Your task to perform on an android device: Show me popular videos on Youtube Image 0: 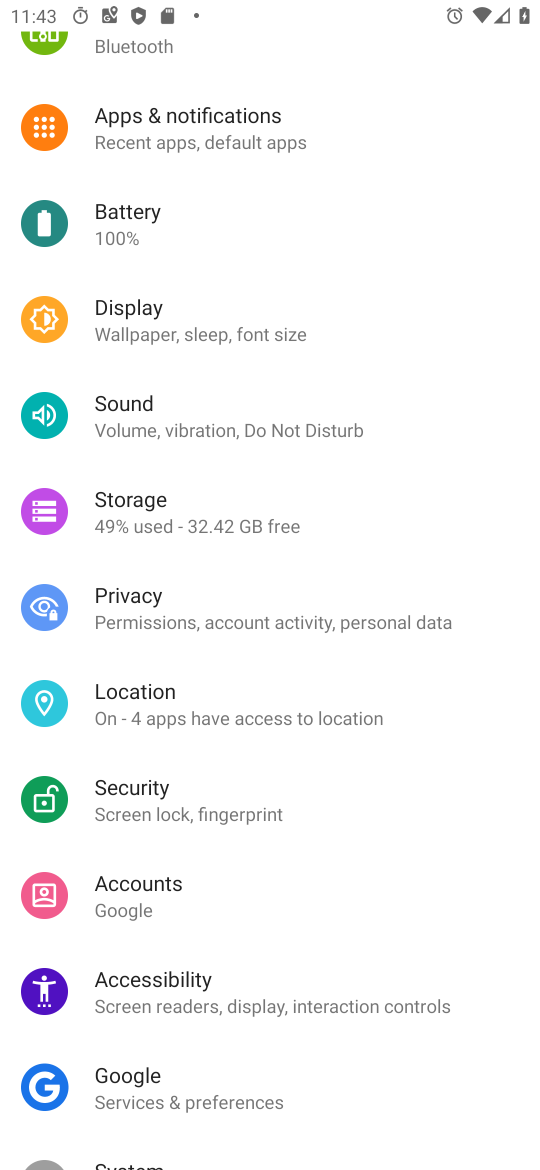
Step 0: press home button
Your task to perform on an android device: Show me popular videos on Youtube Image 1: 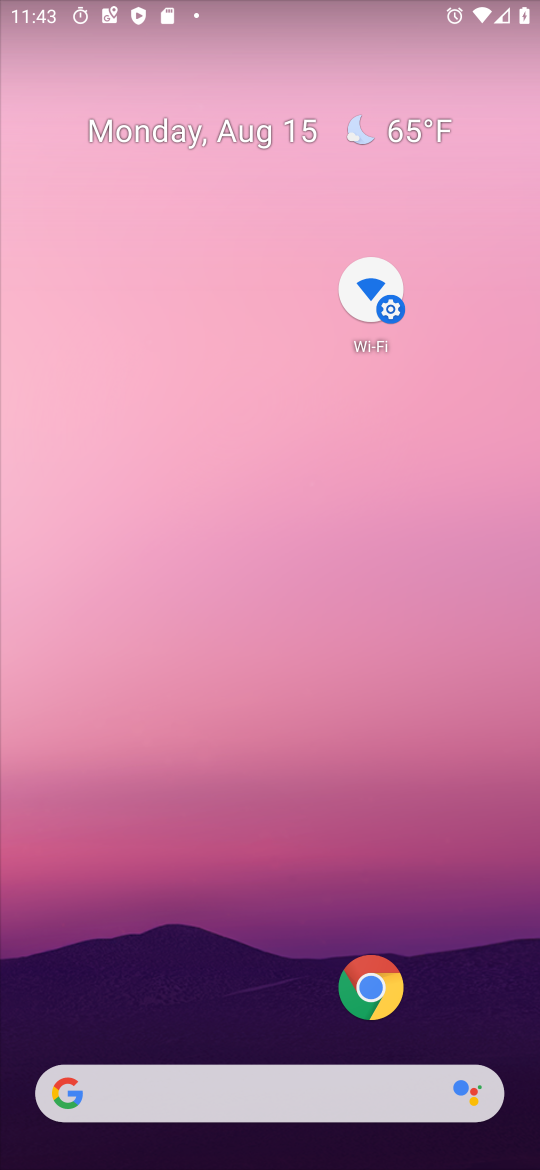
Step 1: drag from (261, 1043) to (445, 5)
Your task to perform on an android device: Show me popular videos on Youtube Image 2: 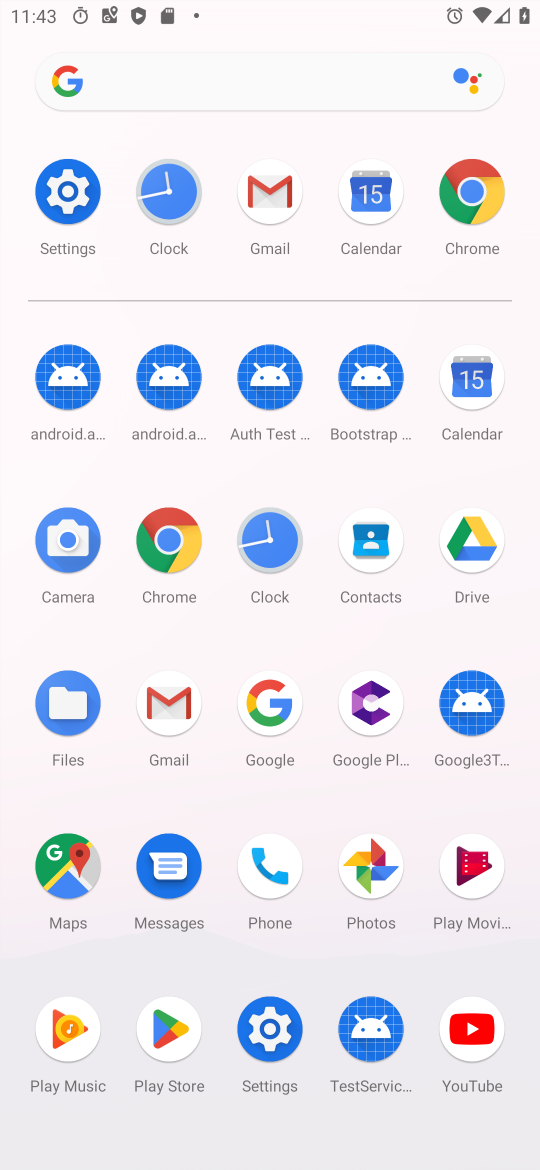
Step 2: click (465, 1014)
Your task to perform on an android device: Show me popular videos on Youtube Image 3: 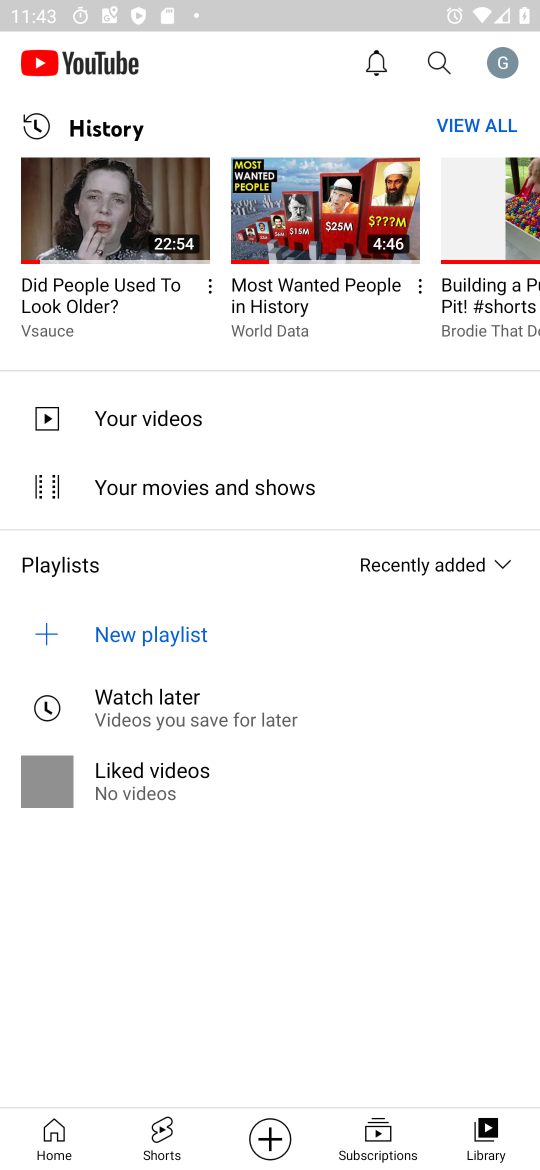
Step 3: click (59, 1129)
Your task to perform on an android device: Show me popular videos on Youtube Image 4: 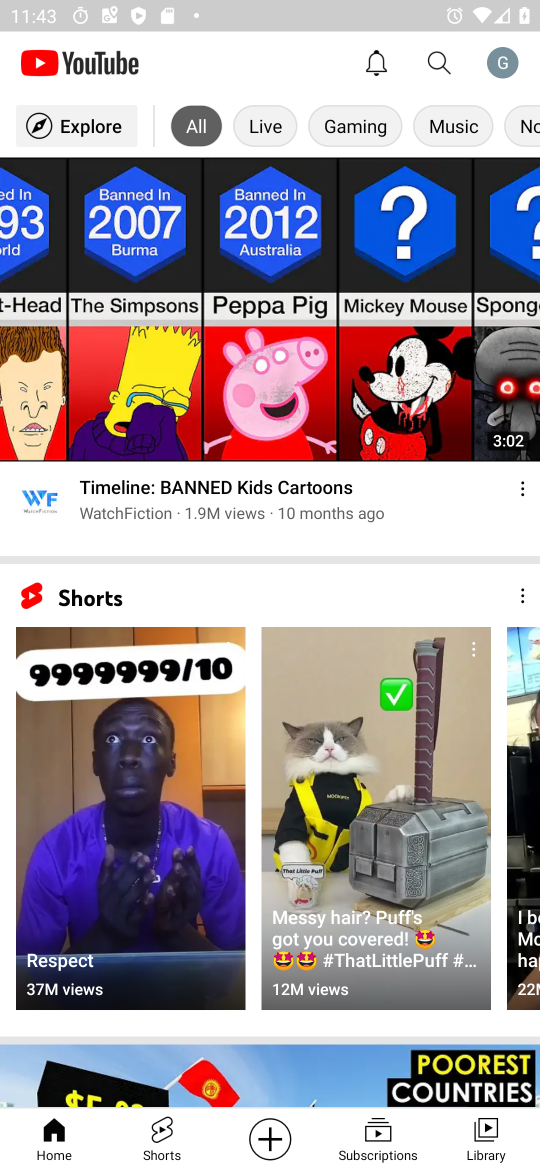
Step 4: drag from (207, 811) to (99, 15)
Your task to perform on an android device: Show me popular videos on Youtube Image 5: 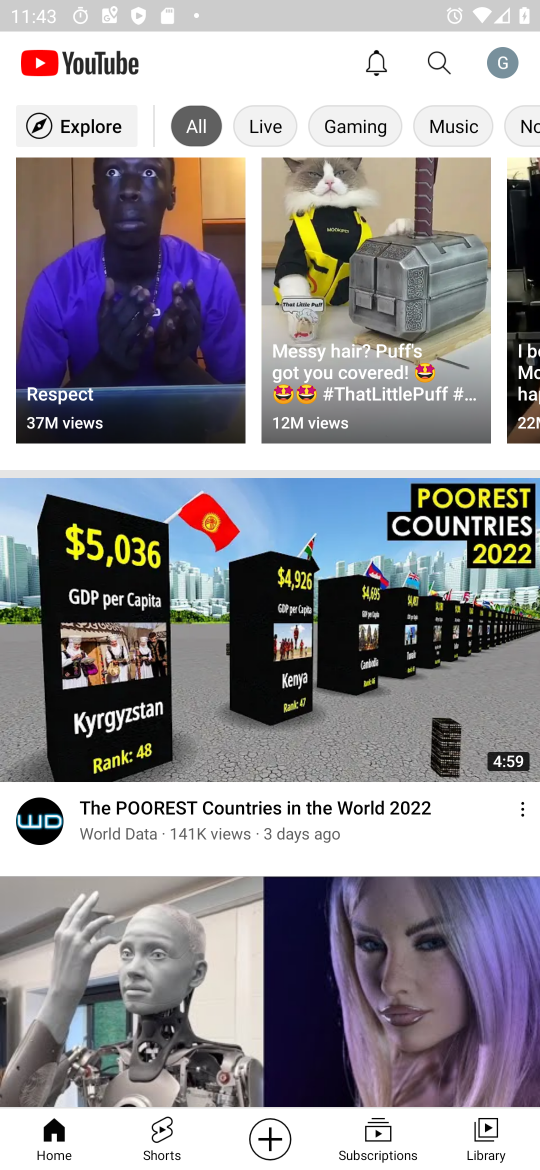
Step 5: click (104, 124)
Your task to perform on an android device: Show me popular videos on Youtube Image 6: 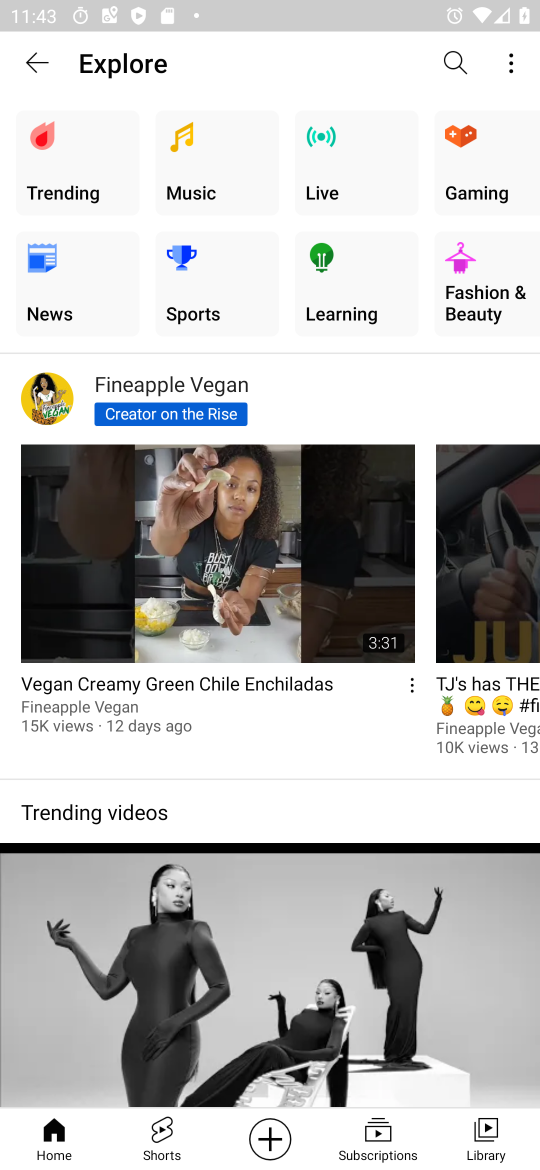
Step 6: task complete